Your task to perform on an android device: refresh tabs in the chrome app Image 0: 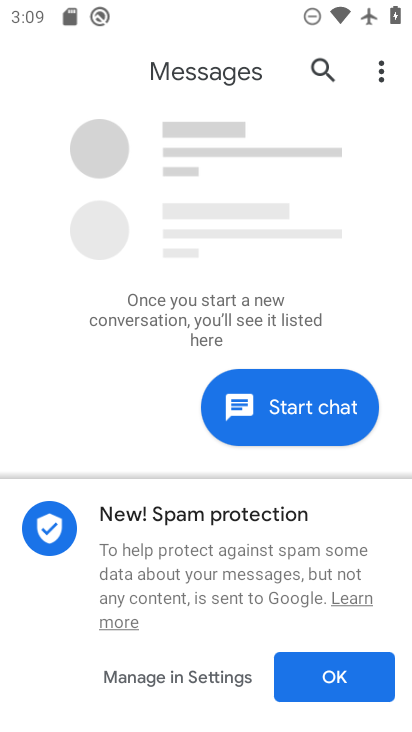
Step 0: press home button
Your task to perform on an android device: refresh tabs in the chrome app Image 1: 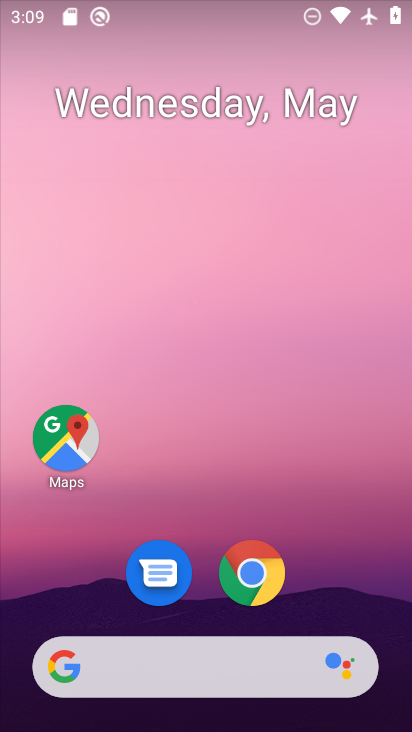
Step 1: click (258, 567)
Your task to perform on an android device: refresh tabs in the chrome app Image 2: 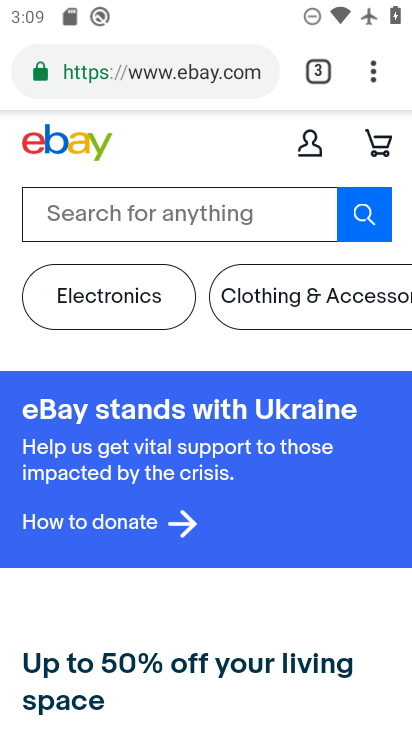
Step 2: click (372, 70)
Your task to perform on an android device: refresh tabs in the chrome app Image 3: 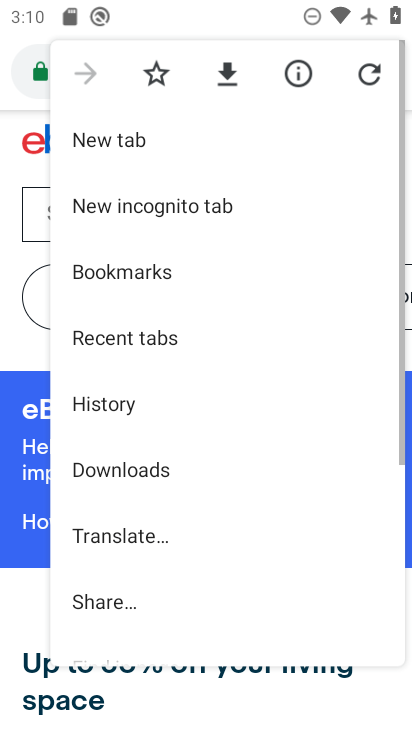
Step 3: click (372, 70)
Your task to perform on an android device: refresh tabs in the chrome app Image 4: 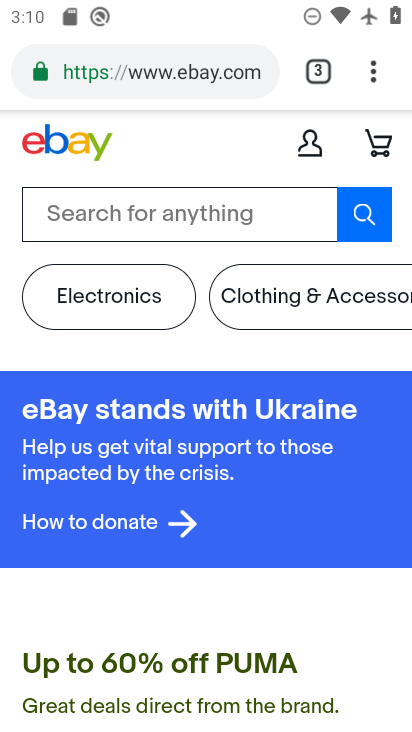
Step 4: click (327, 72)
Your task to perform on an android device: refresh tabs in the chrome app Image 5: 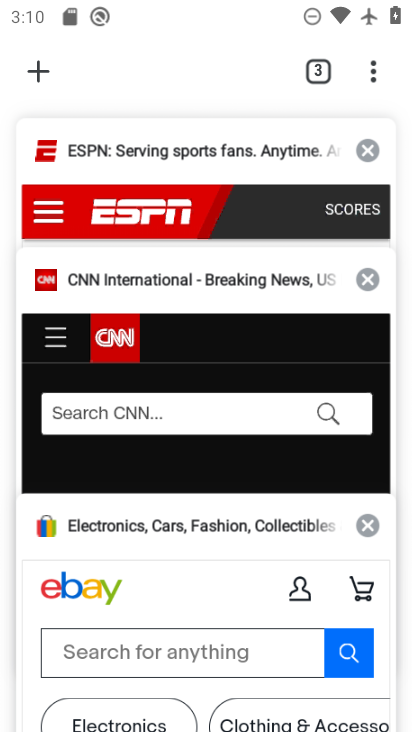
Step 5: click (256, 401)
Your task to perform on an android device: refresh tabs in the chrome app Image 6: 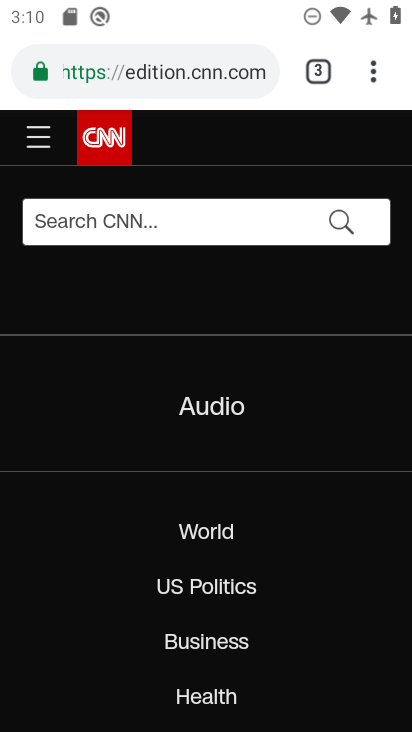
Step 6: click (386, 66)
Your task to perform on an android device: refresh tabs in the chrome app Image 7: 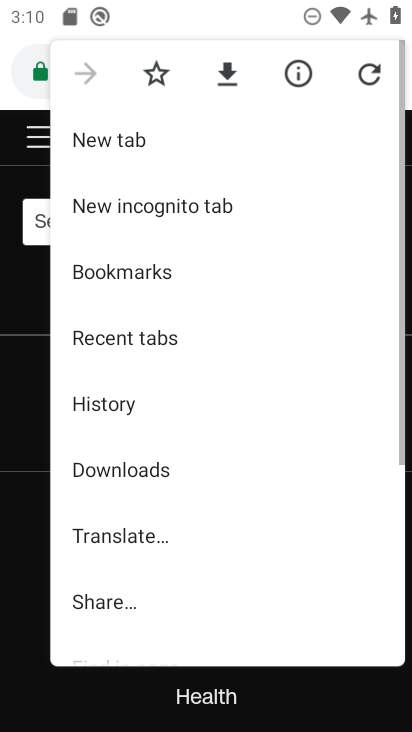
Step 7: click (373, 77)
Your task to perform on an android device: refresh tabs in the chrome app Image 8: 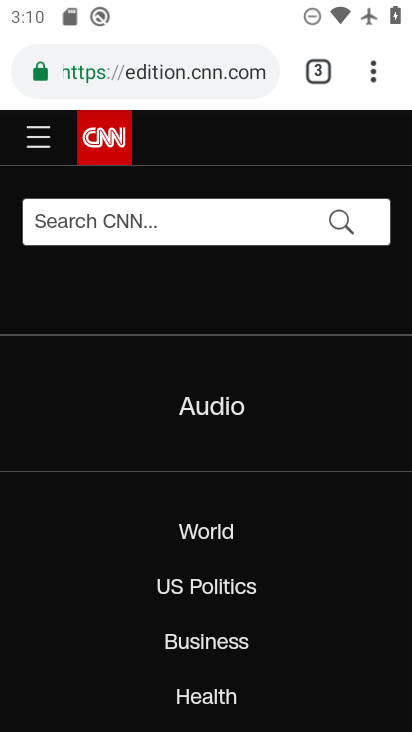
Step 8: click (329, 68)
Your task to perform on an android device: refresh tabs in the chrome app Image 9: 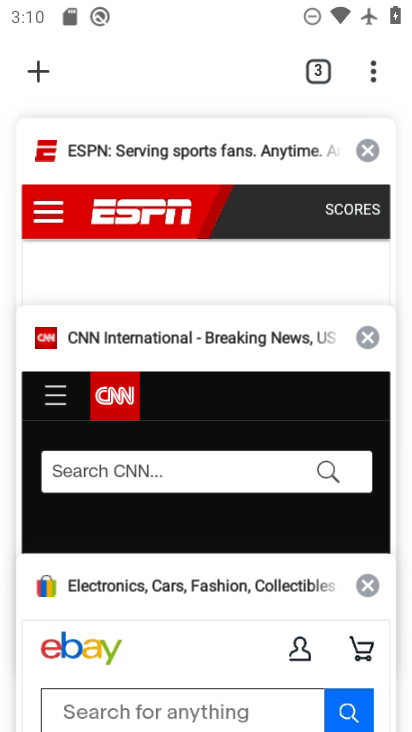
Step 9: click (253, 159)
Your task to perform on an android device: refresh tabs in the chrome app Image 10: 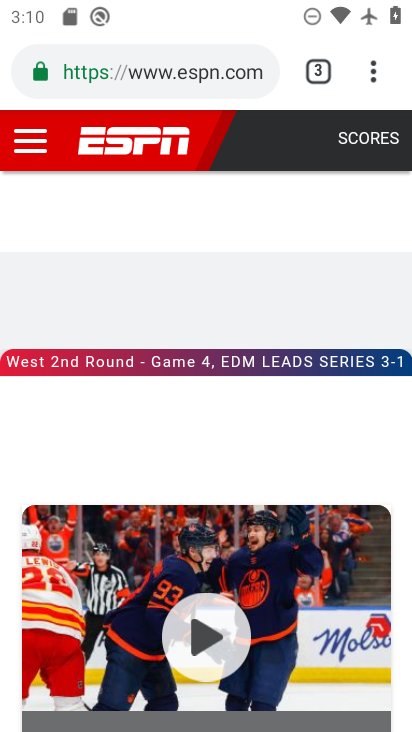
Step 10: click (375, 65)
Your task to perform on an android device: refresh tabs in the chrome app Image 11: 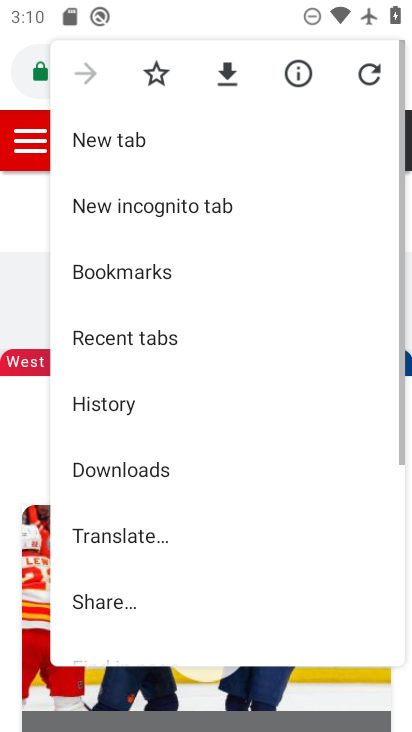
Step 11: click (370, 76)
Your task to perform on an android device: refresh tabs in the chrome app Image 12: 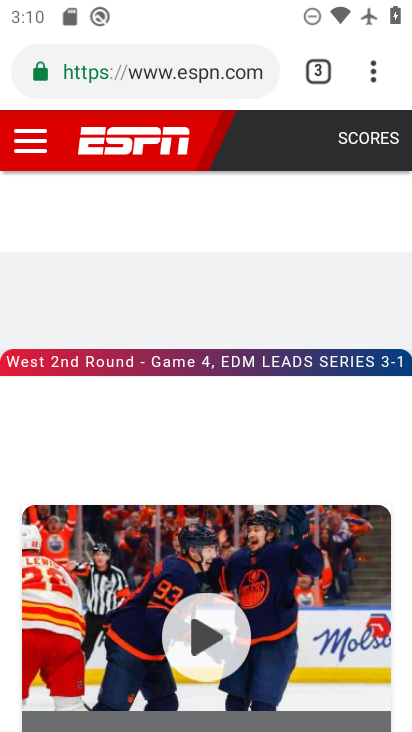
Step 12: task complete